Your task to perform on an android device: install app "Reddit" Image 0: 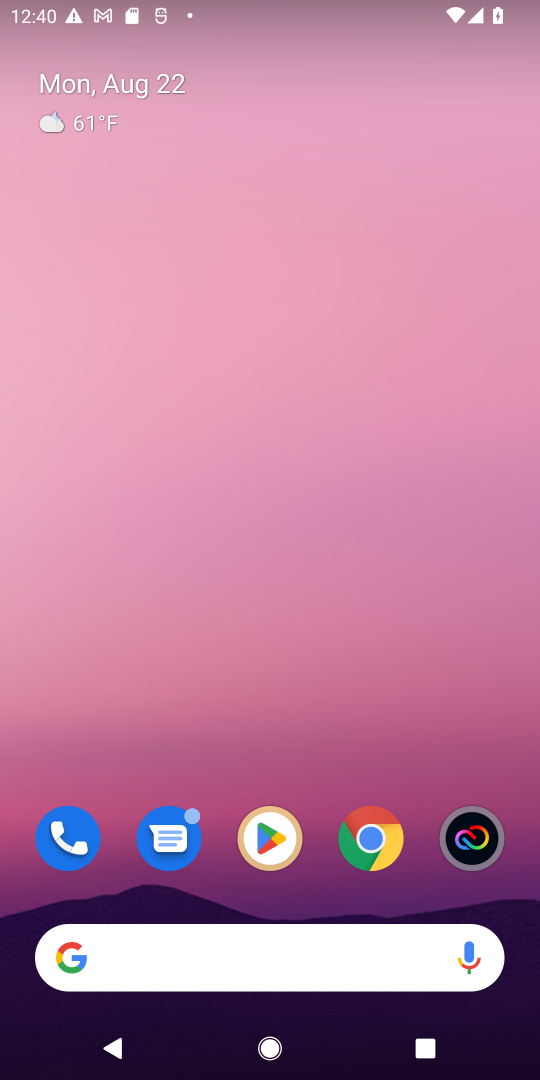
Step 0: drag from (317, 848) to (311, 452)
Your task to perform on an android device: install app "Reddit" Image 1: 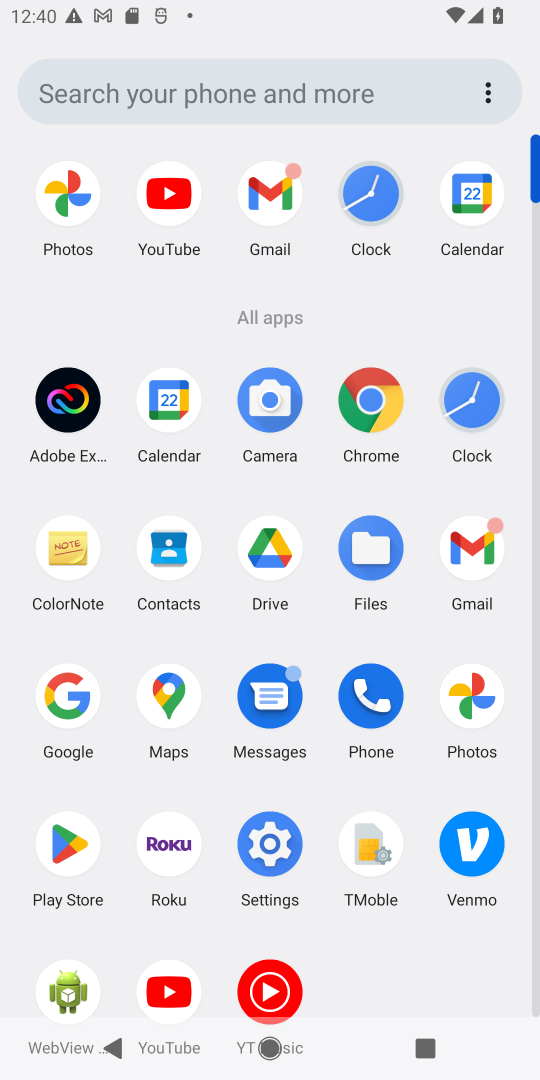
Step 1: click (42, 837)
Your task to perform on an android device: install app "Reddit" Image 2: 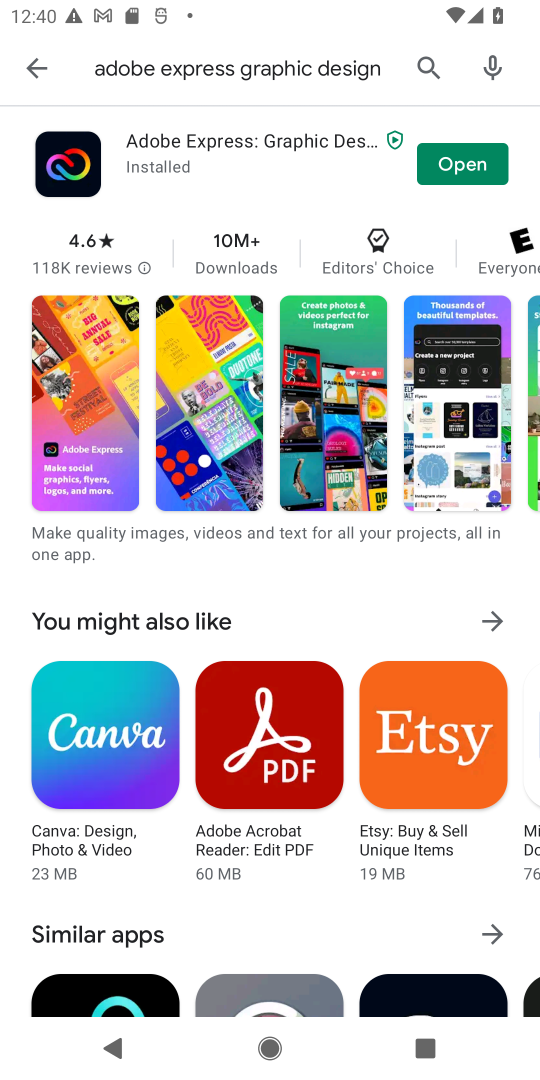
Step 2: click (432, 76)
Your task to perform on an android device: install app "Reddit" Image 3: 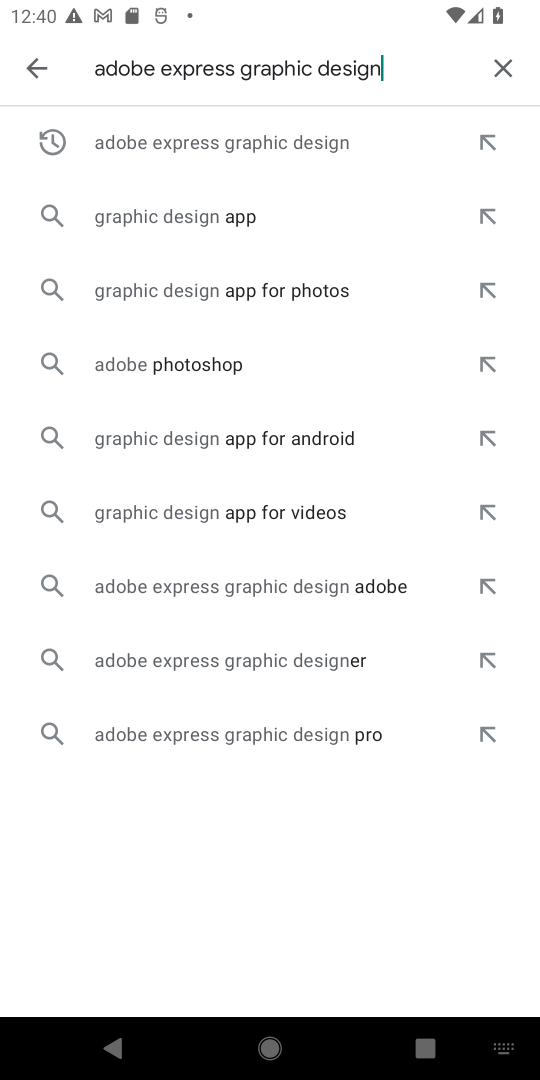
Step 3: click (497, 70)
Your task to perform on an android device: install app "Reddit" Image 4: 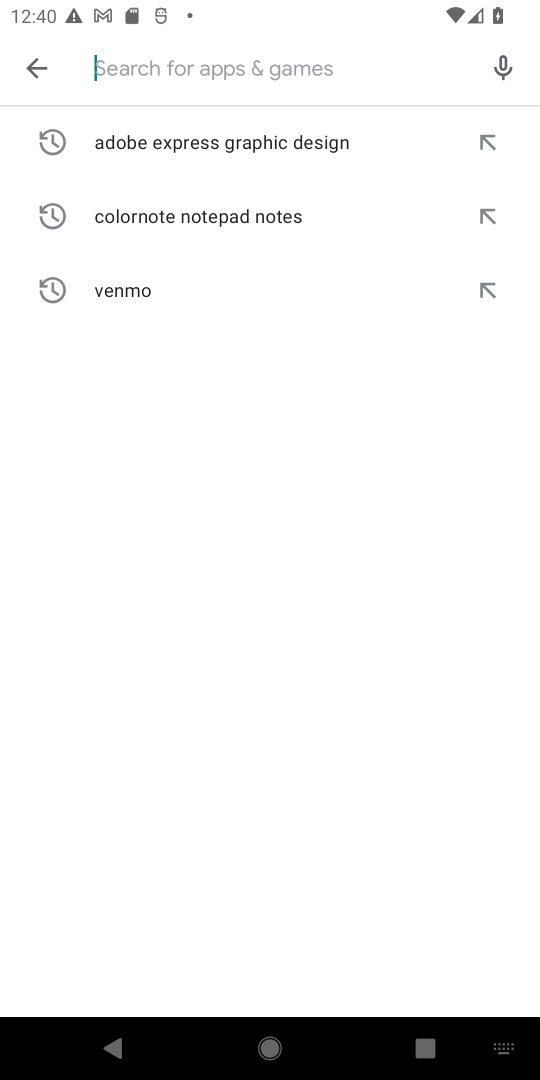
Step 4: type "Reddit"
Your task to perform on an android device: install app "Reddit" Image 5: 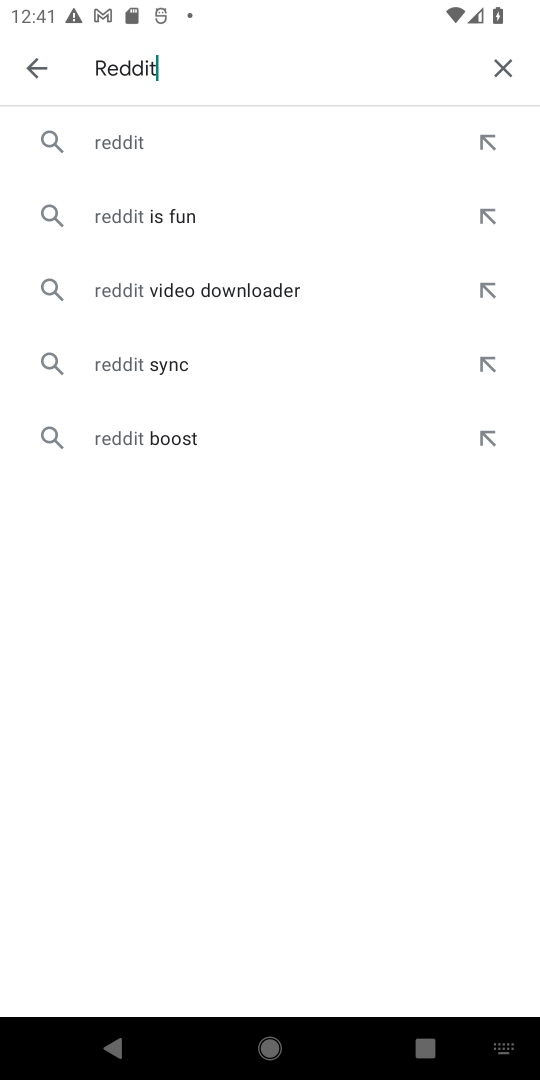
Step 5: click (138, 141)
Your task to perform on an android device: install app "Reddit" Image 6: 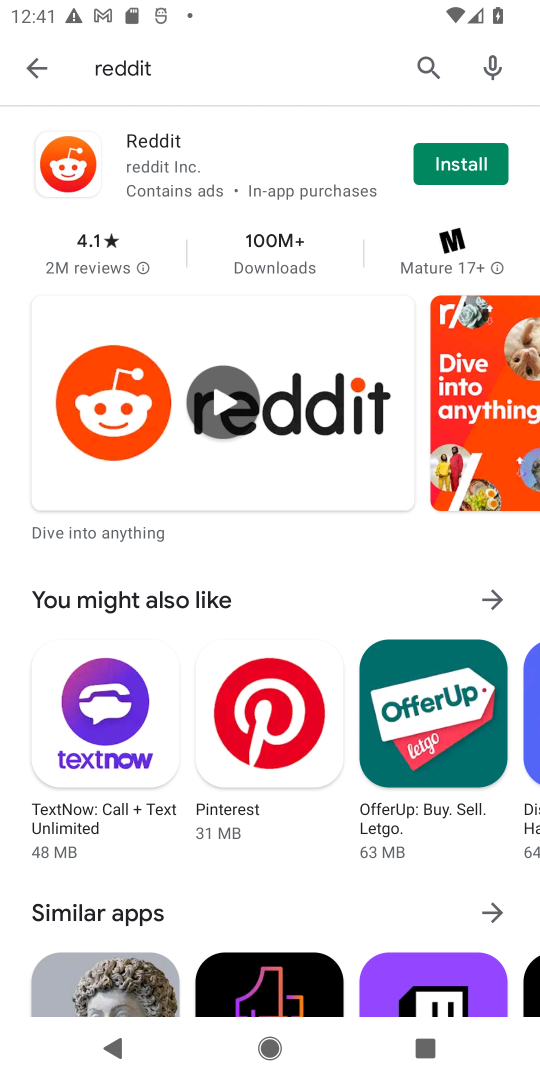
Step 6: click (472, 166)
Your task to perform on an android device: install app "Reddit" Image 7: 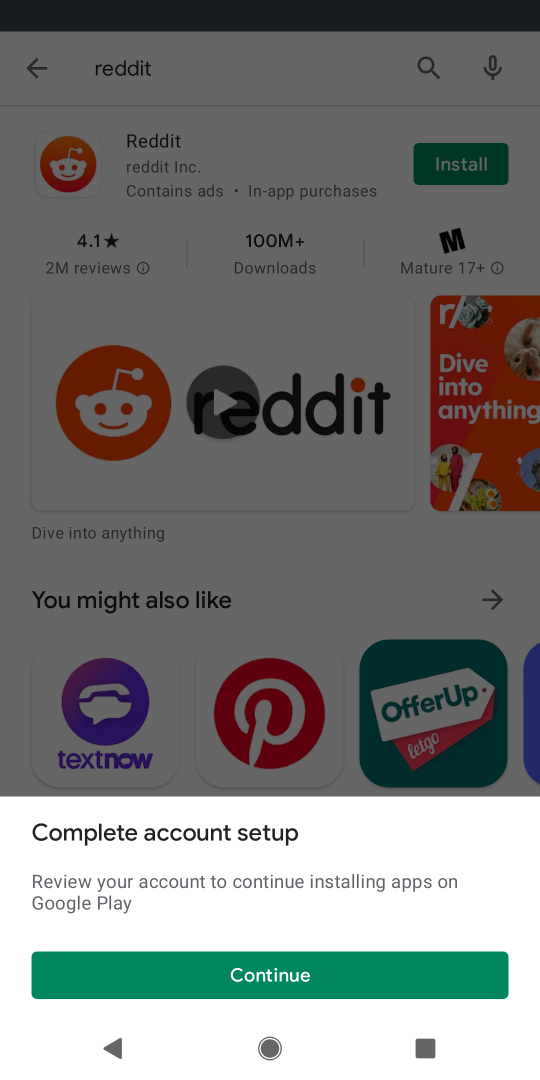
Step 7: click (311, 992)
Your task to perform on an android device: install app "Reddit" Image 8: 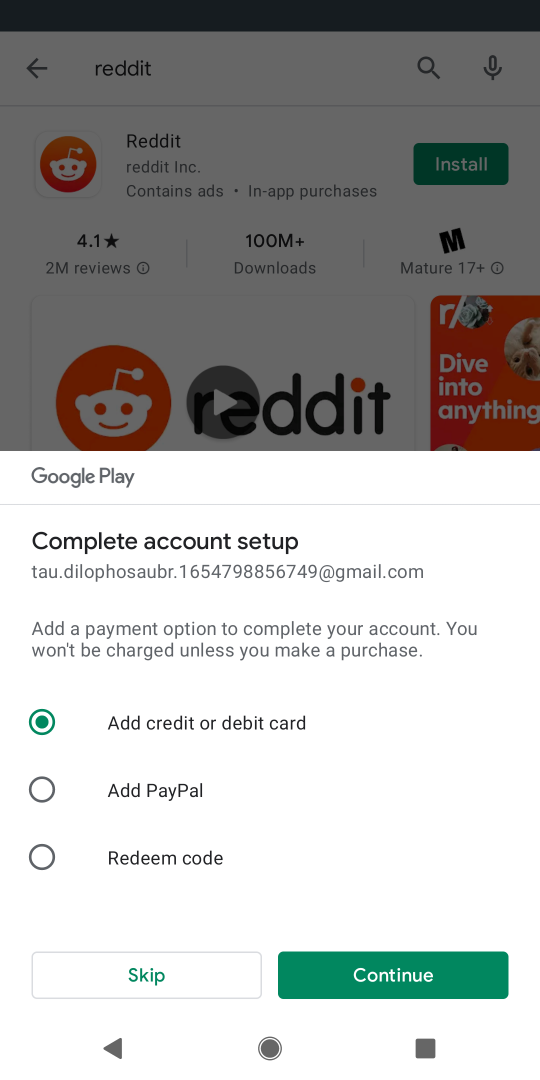
Step 8: click (175, 981)
Your task to perform on an android device: install app "Reddit" Image 9: 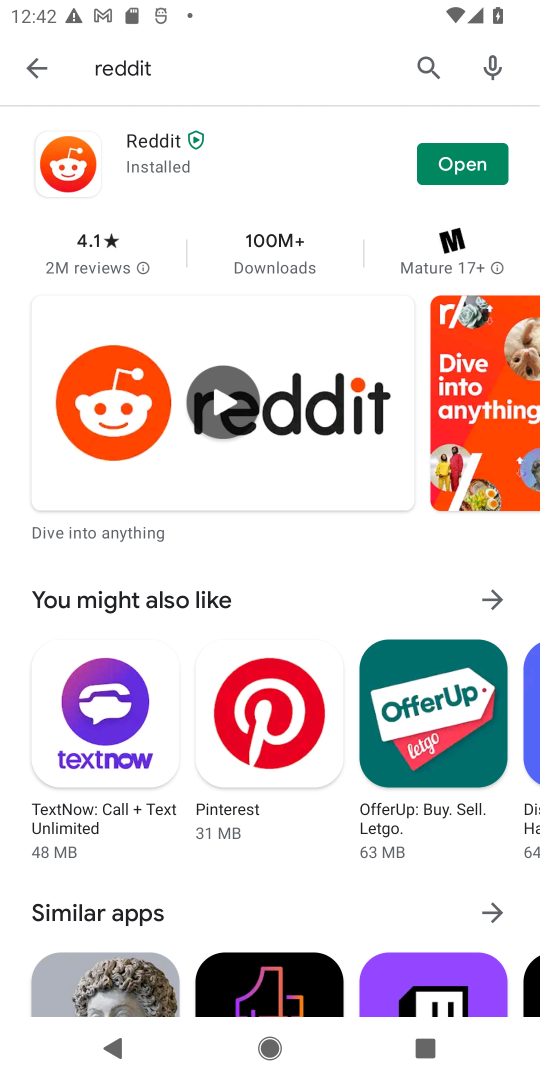
Step 9: click (487, 154)
Your task to perform on an android device: install app "Reddit" Image 10: 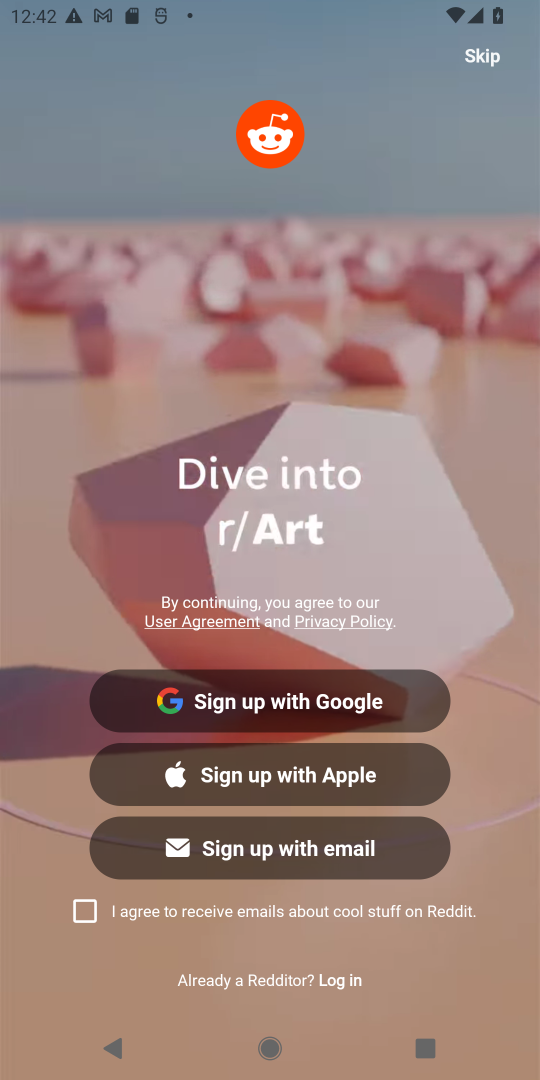
Step 10: task complete